Your task to perform on an android device: turn off javascript in the chrome app Image 0: 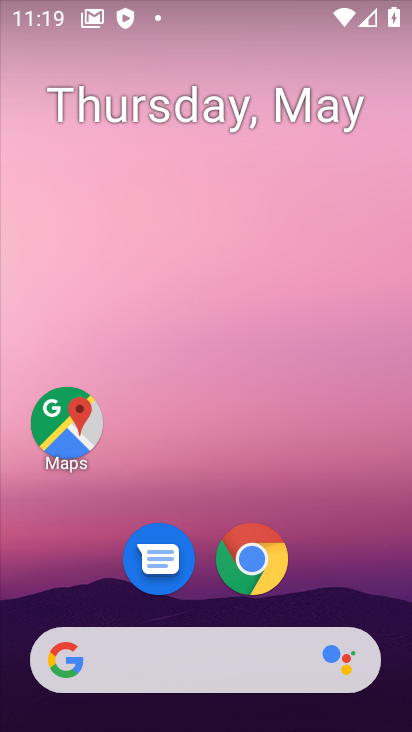
Step 0: click (246, 587)
Your task to perform on an android device: turn off javascript in the chrome app Image 1: 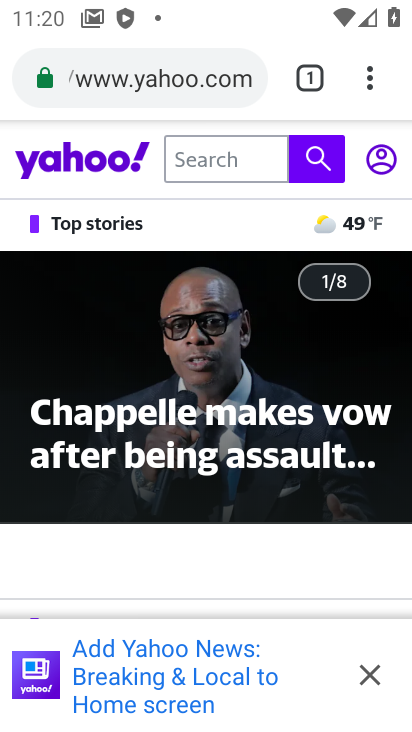
Step 1: drag from (370, 81) to (138, 611)
Your task to perform on an android device: turn off javascript in the chrome app Image 2: 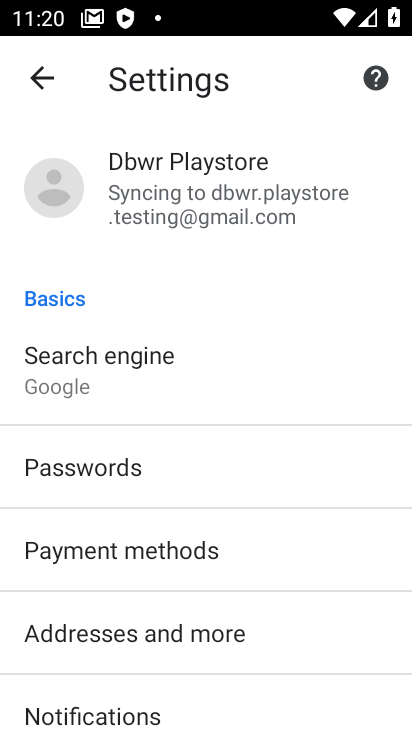
Step 2: drag from (149, 638) to (154, 312)
Your task to perform on an android device: turn off javascript in the chrome app Image 3: 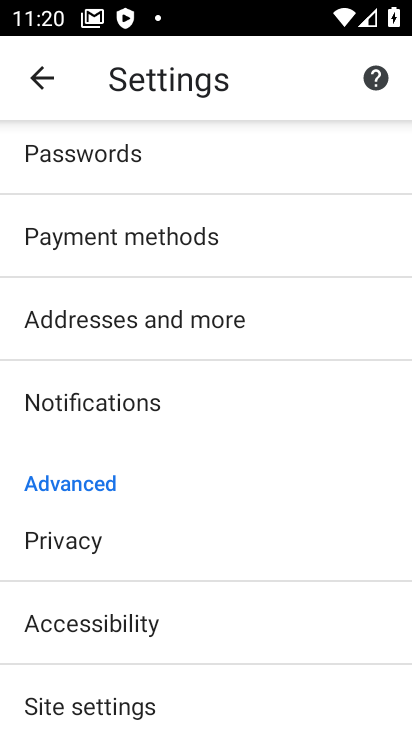
Step 3: click (147, 700)
Your task to perform on an android device: turn off javascript in the chrome app Image 4: 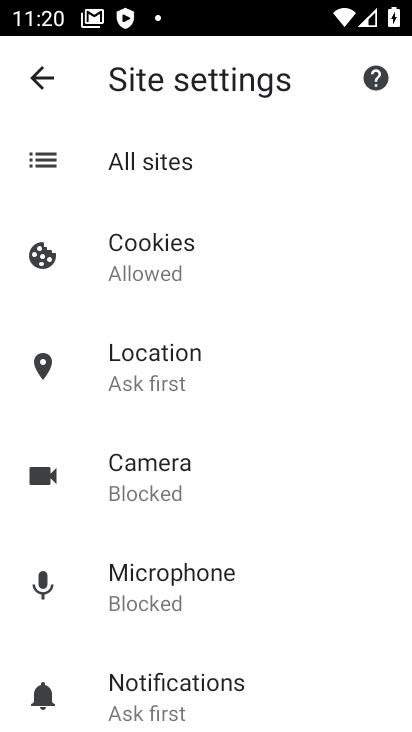
Step 4: drag from (218, 662) to (215, 325)
Your task to perform on an android device: turn off javascript in the chrome app Image 5: 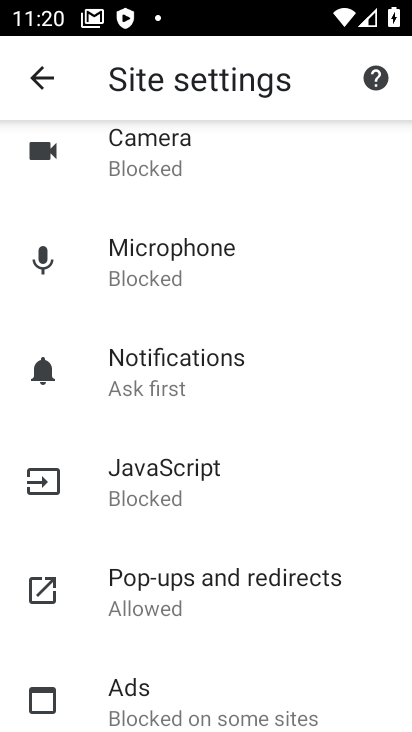
Step 5: click (153, 473)
Your task to perform on an android device: turn off javascript in the chrome app Image 6: 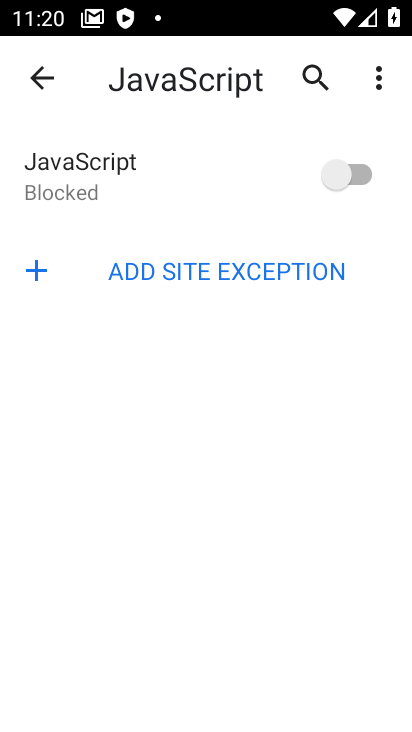
Step 6: task complete